Your task to perform on an android device: Search for "logitech g903" on walmart.com, select the first entry, add it to the cart, then select checkout. Image 0: 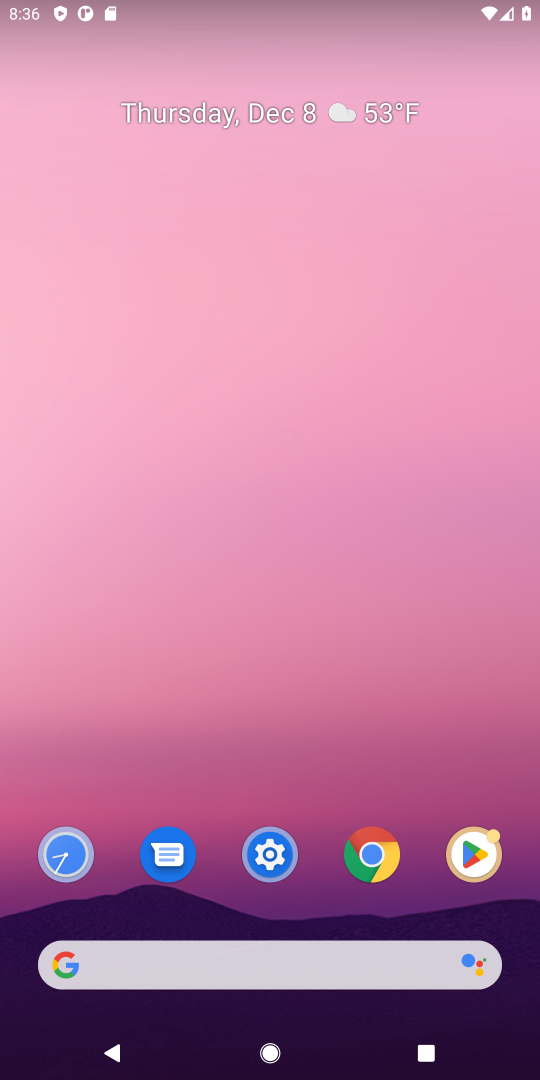
Step 0: click (103, 961)
Your task to perform on an android device: Search for "logitech g903" on walmart.com, select the first entry, add it to the cart, then select checkout. Image 1: 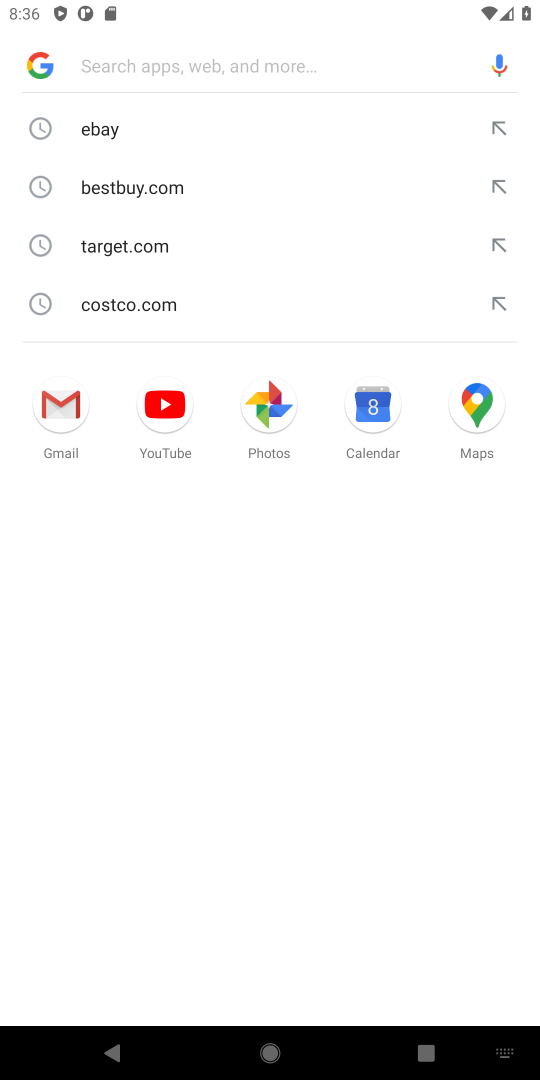
Step 1: type "walmart.com"
Your task to perform on an android device: Search for "logitech g903" on walmart.com, select the first entry, add it to the cart, then select checkout. Image 2: 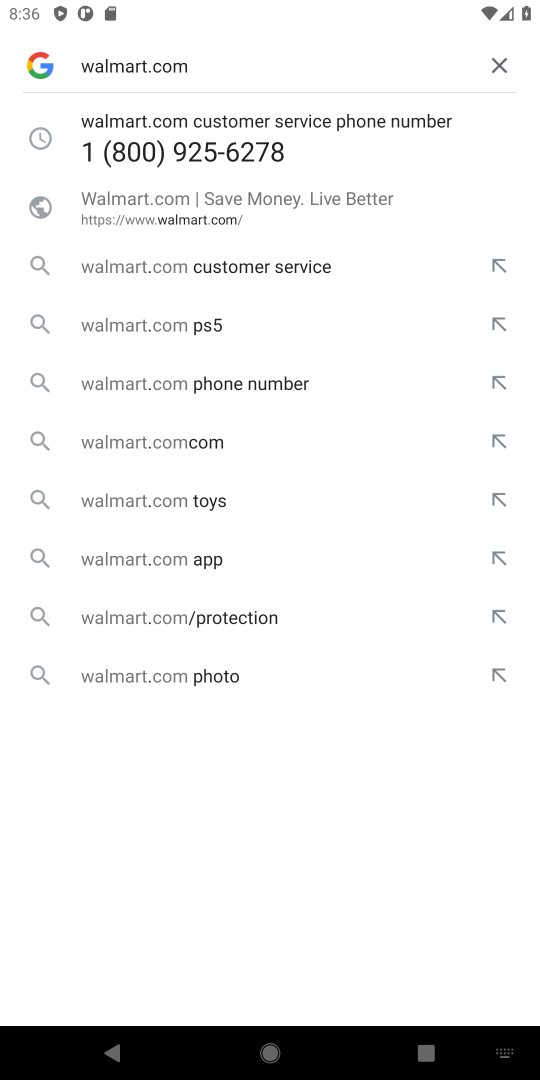
Step 2: press enter
Your task to perform on an android device: Search for "logitech g903" on walmart.com, select the first entry, add it to the cart, then select checkout. Image 3: 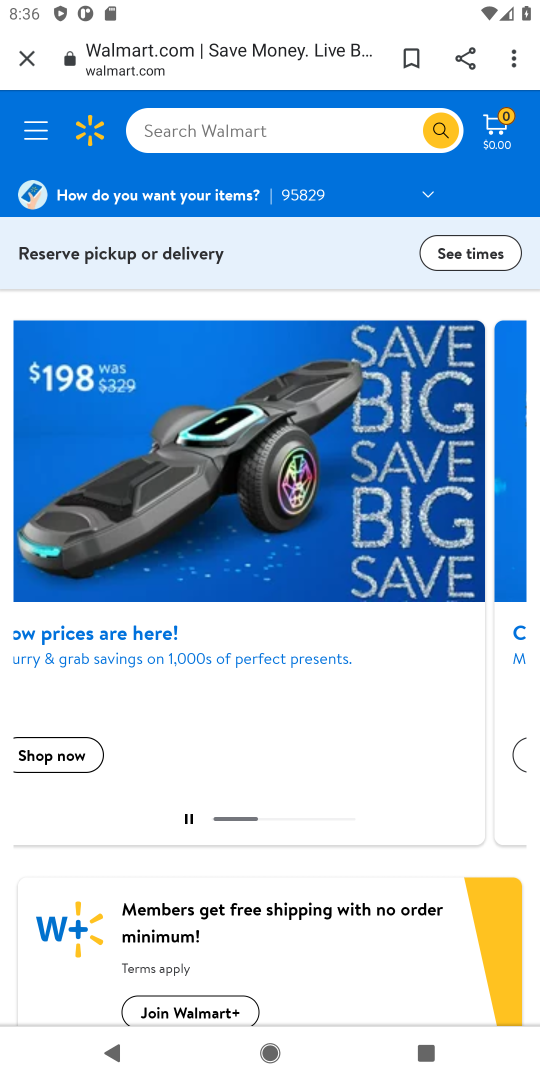
Step 3: click (184, 121)
Your task to perform on an android device: Search for "logitech g903" on walmart.com, select the first entry, add it to the cart, then select checkout. Image 4: 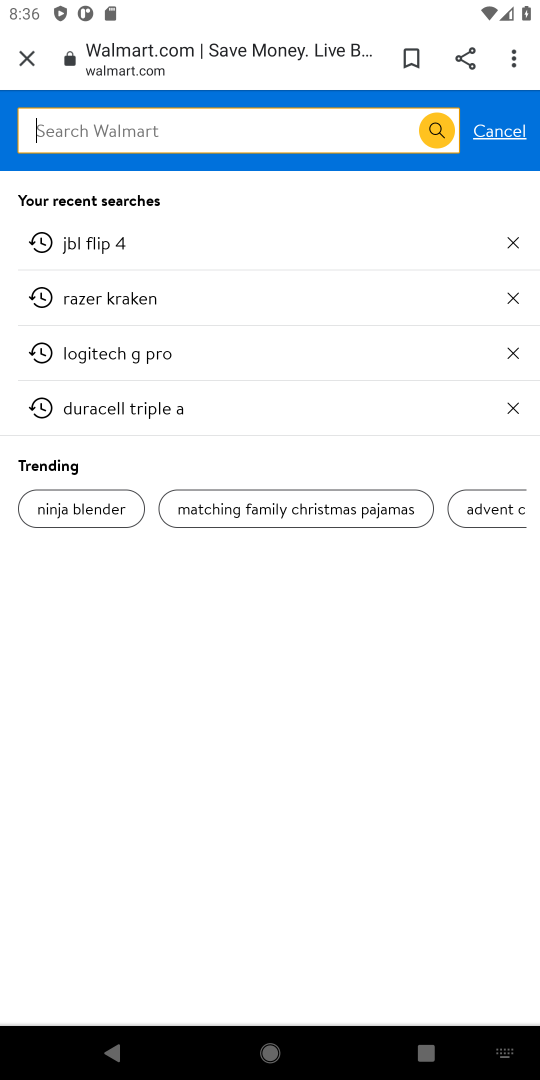
Step 4: type "logitech g903"
Your task to perform on an android device: Search for "logitech g903" on walmart.com, select the first entry, add it to the cart, then select checkout. Image 5: 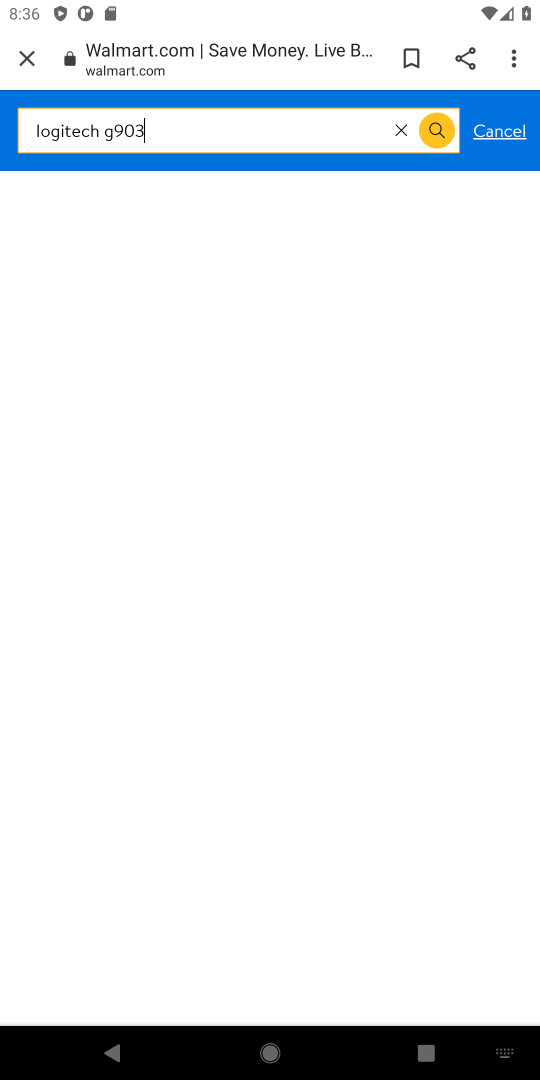
Step 5: press enter
Your task to perform on an android device: Search for "logitech g903" on walmart.com, select the first entry, add it to the cart, then select checkout. Image 6: 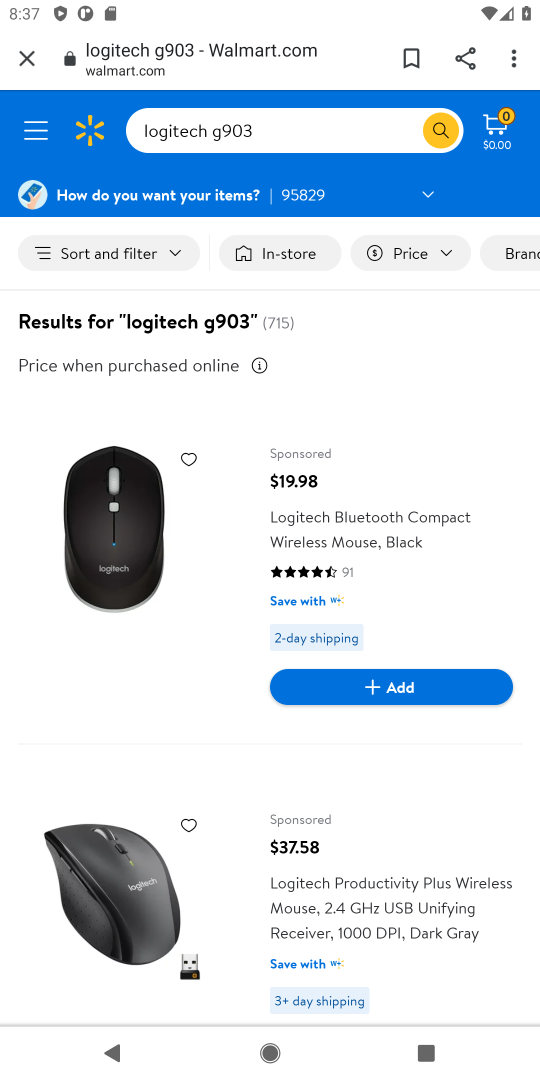
Step 6: drag from (376, 956) to (373, 475)
Your task to perform on an android device: Search for "logitech g903" on walmart.com, select the first entry, add it to the cart, then select checkout. Image 7: 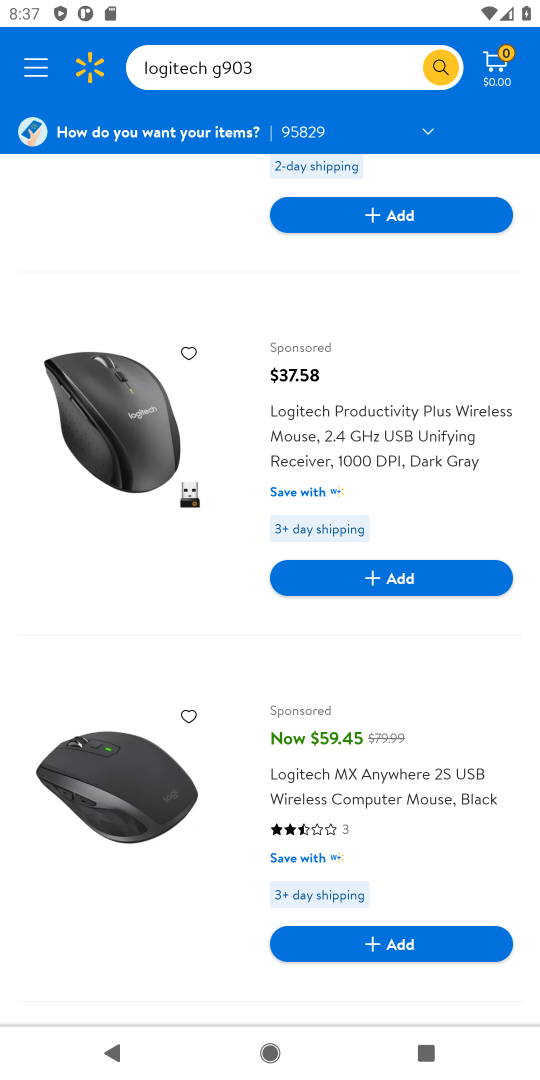
Step 7: drag from (260, 864) to (310, 300)
Your task to perform on an android device: Search for "logitech g903" on walmart.com, select the first entry, add it to the cart, then select checkout. Image 8: 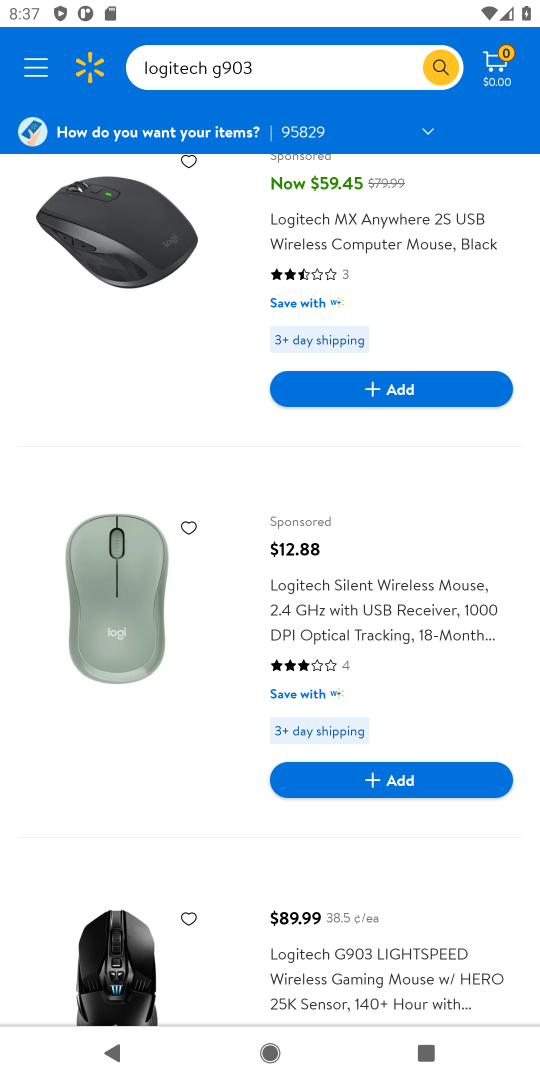
Step 8: drag from (308, 899) to (339, 418)
Your task to perform on an android device: Search for "logitech g903" on walmart.com, select the first entry, add it to the cart, then select checkout. Image 9: 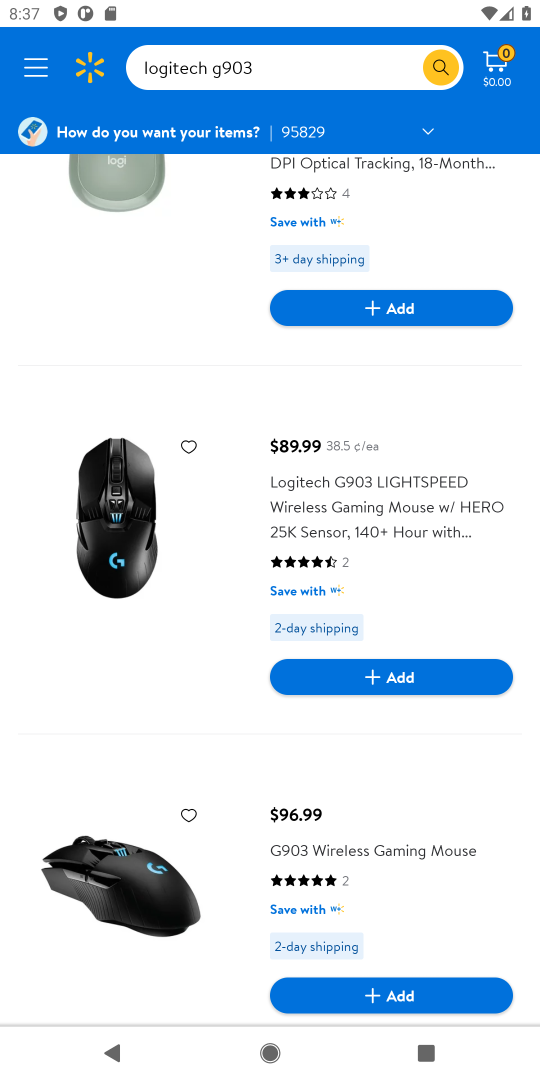
Step 9: click (418, 678)
Your task to perform on an android device: Search for "logitech g903" on walmart.com, select the first entry, add it to the cart, then select checkout. Image 10: 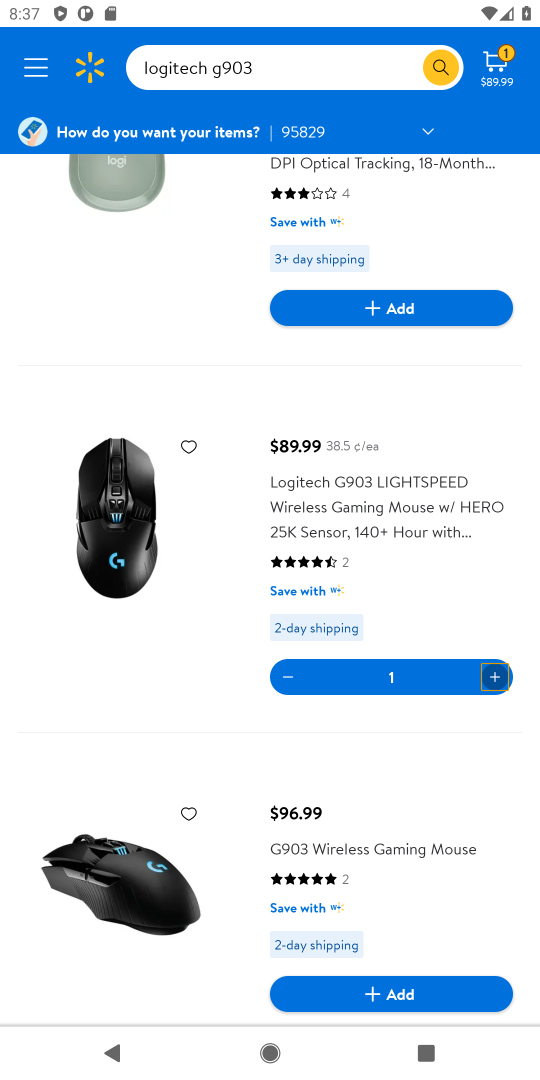
Step 10: click (495, 57)
Your task to perform on an android device: Search for "logitech g903" on walmart.com, select the first entry, add it to the cart, then select checkout. Image 11: 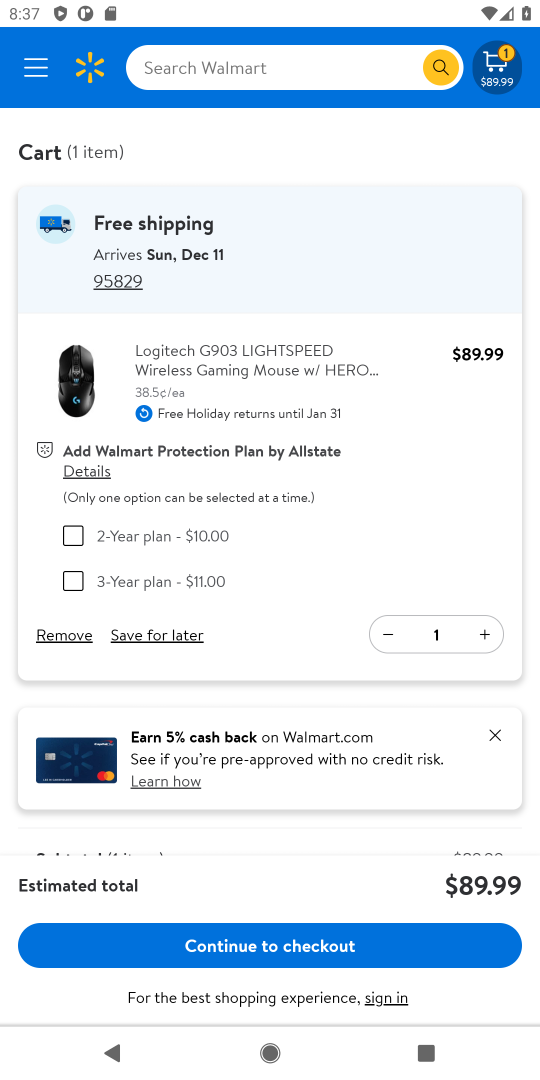
Step 11: click (238, 947)
Your task to perform on an android device: Search for "logitech g903" on walmart.com, select the first entry, add it to the cart, then select checkout. Image 12: 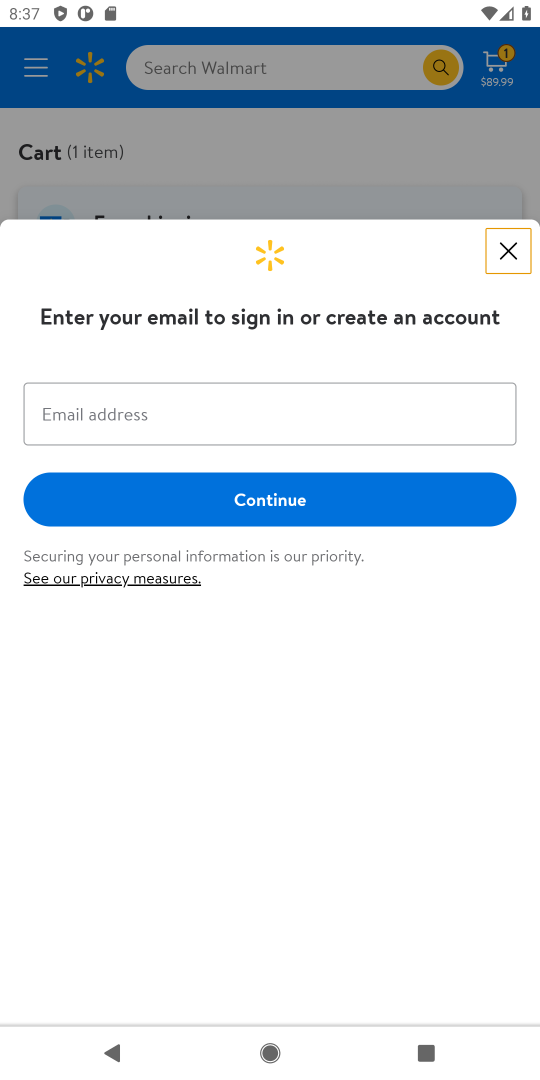
Step 12: task complete